Your task to perform on an android device: open chrome privacy settings Image 0: 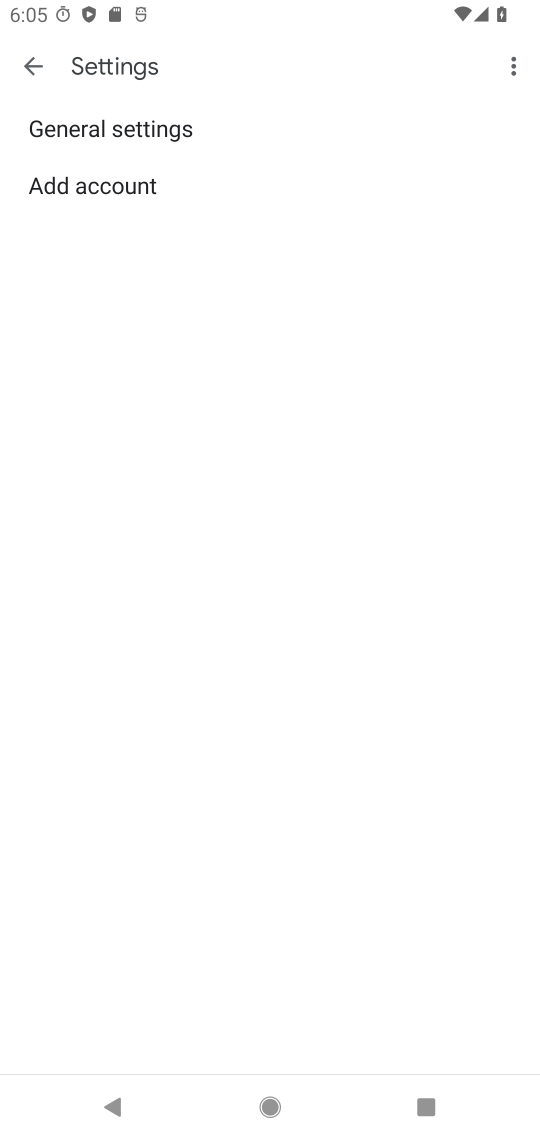
Step 0: press home button
Your task to perform on an android device: open chrome privacy settings Image 1: 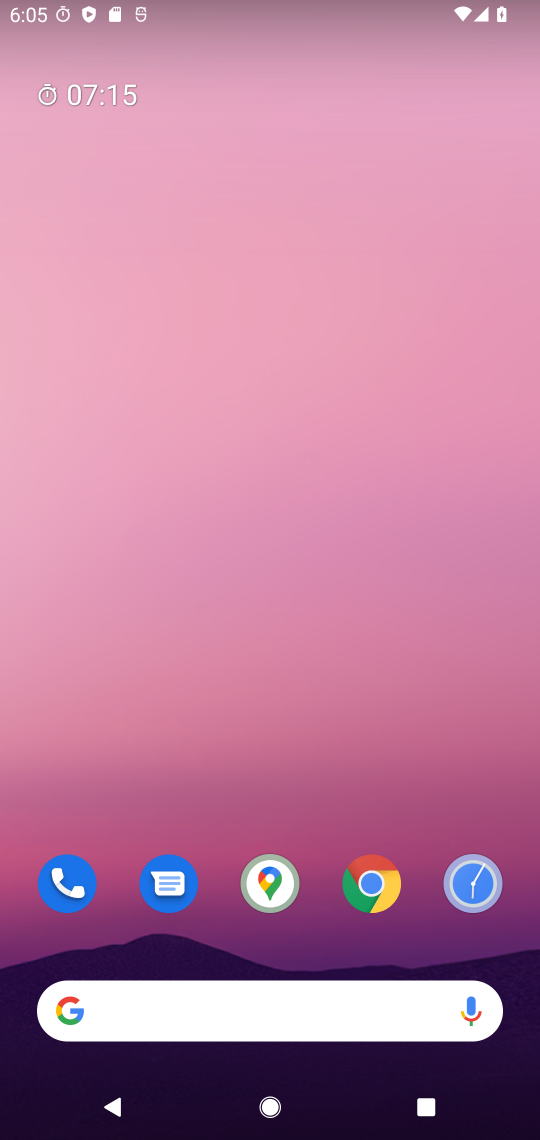
Step 1: click (353, 866)
Your task to perform on an android device: open chrome privacy settings Image 2: 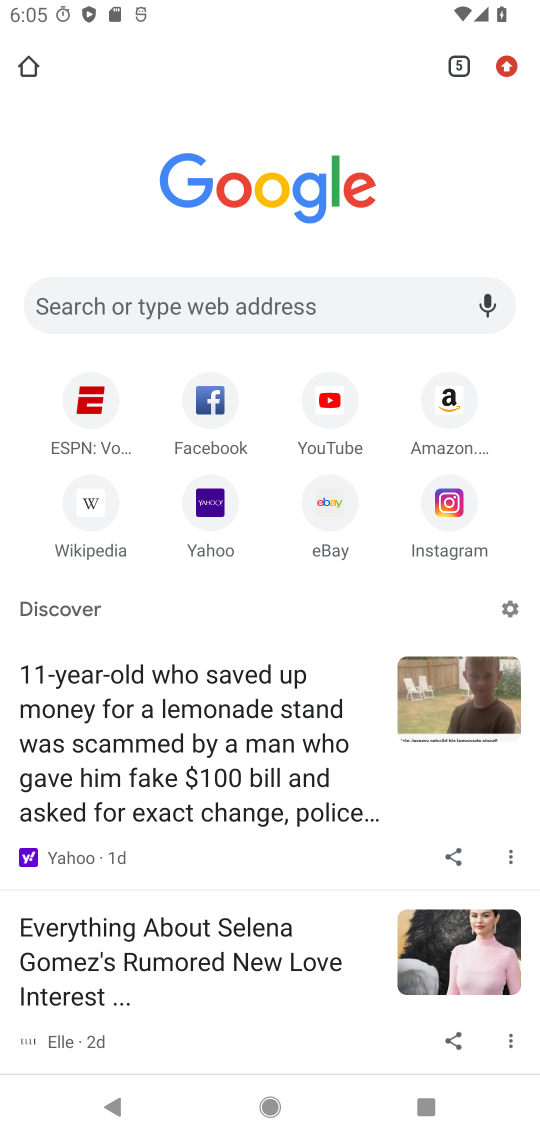
Step 2: click (511, 62)
Your task to perform on an android device: open chrome privacy settings Image 3: 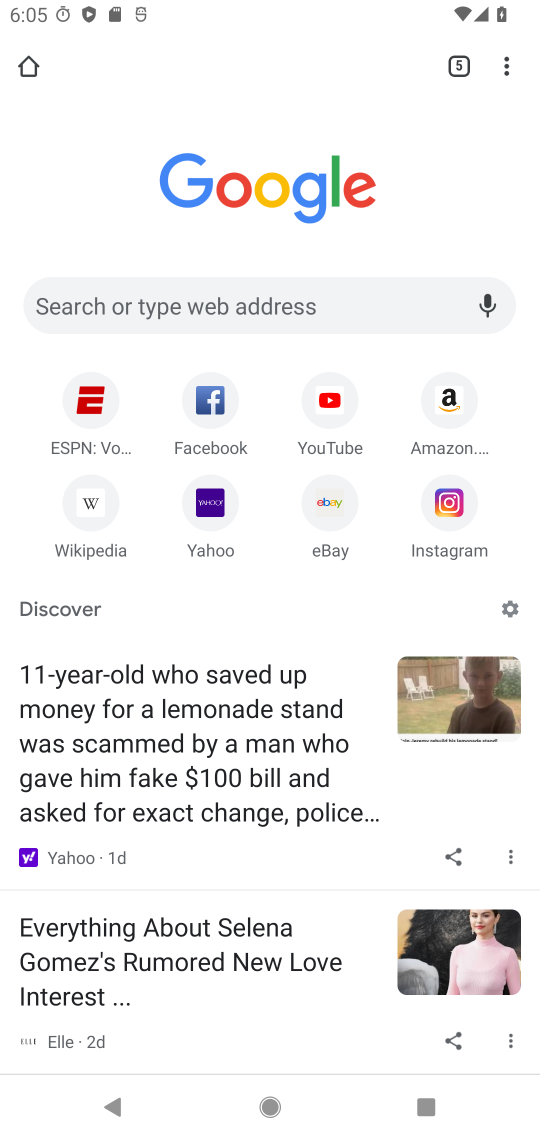
Step 3: click (501, 73)
Your task to perform on an android device: open chrome privacy settings Image 4: 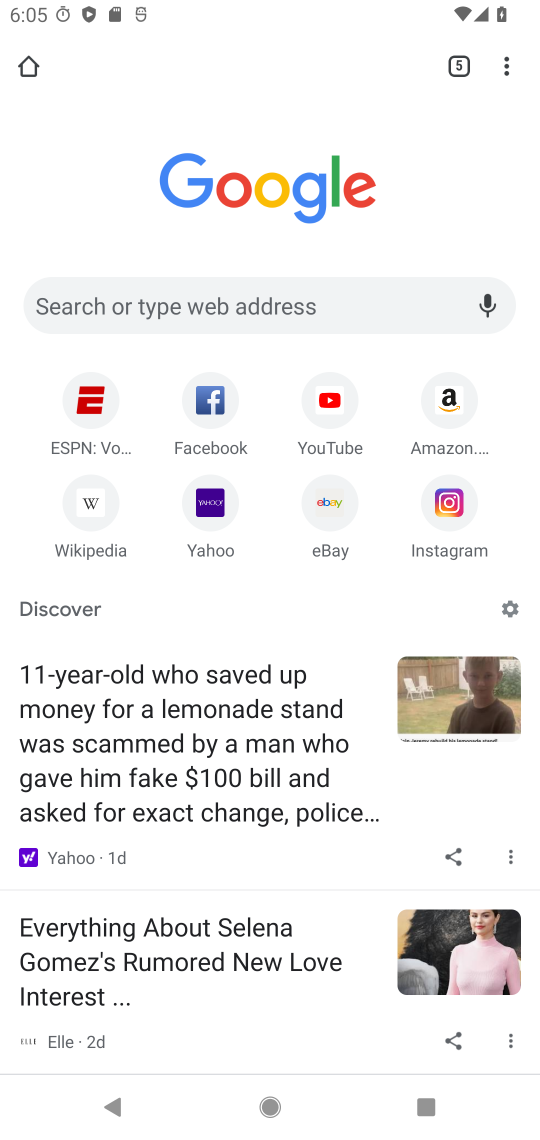
Step 4: drag from (501, 73) to (354, 637)
Your task to perform on an android device: open chrome privacy settings Image 5: 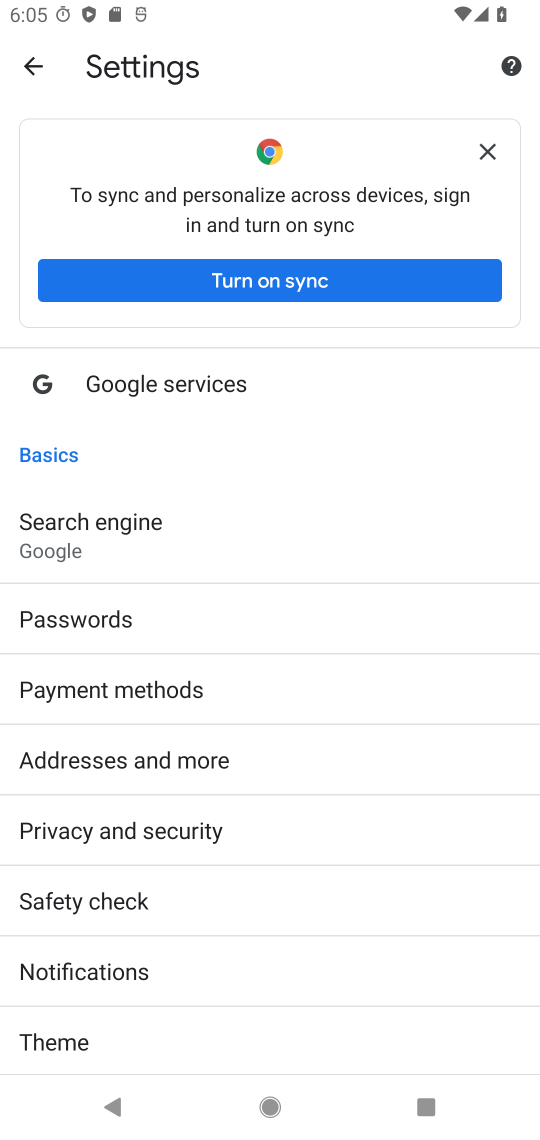
Step 5: drag from (162, 952) to (220, 498)
Your task to perform on an android device: open chrome privacy settings Image 6: 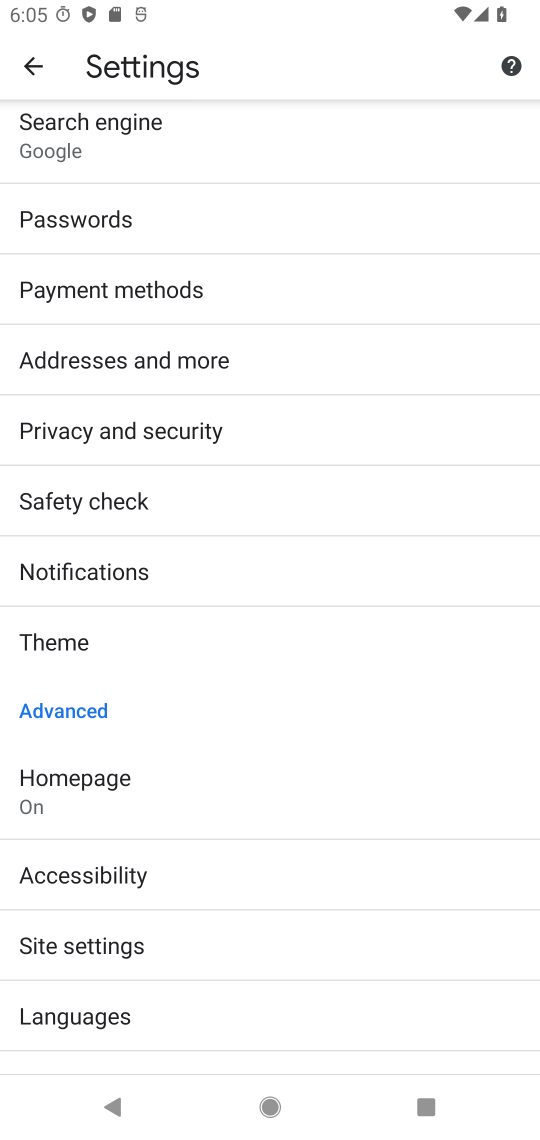
Step 6: drag from (180, 780) to (203, 501)
Your task to perform on an android device: open chrome privacy settings Image 7: 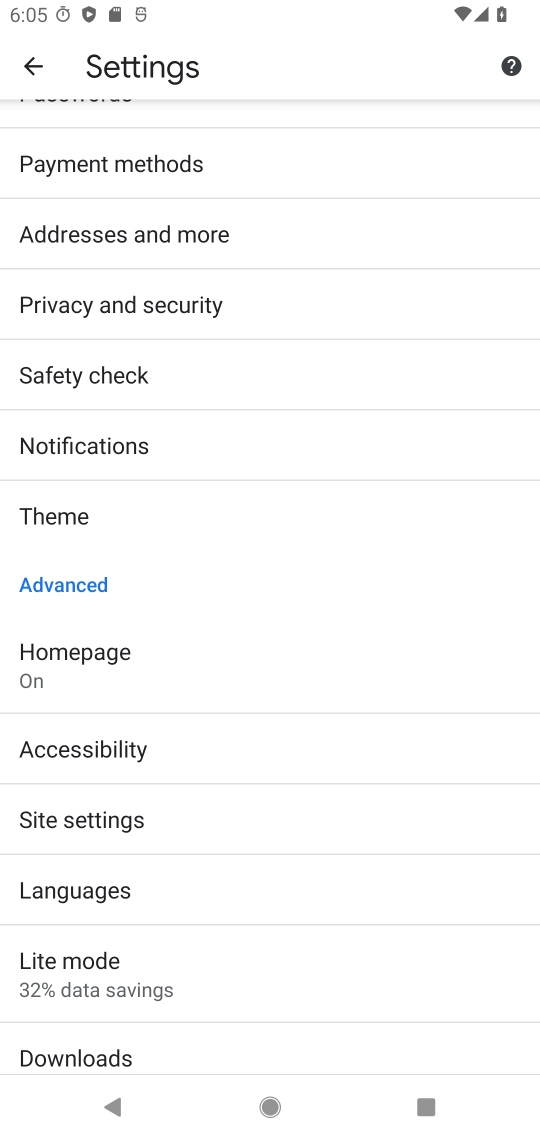
Step 7: drag from (195, 869) to (228, 494)
Your task to perform on an android device: open chrome privacy settings Image 8: 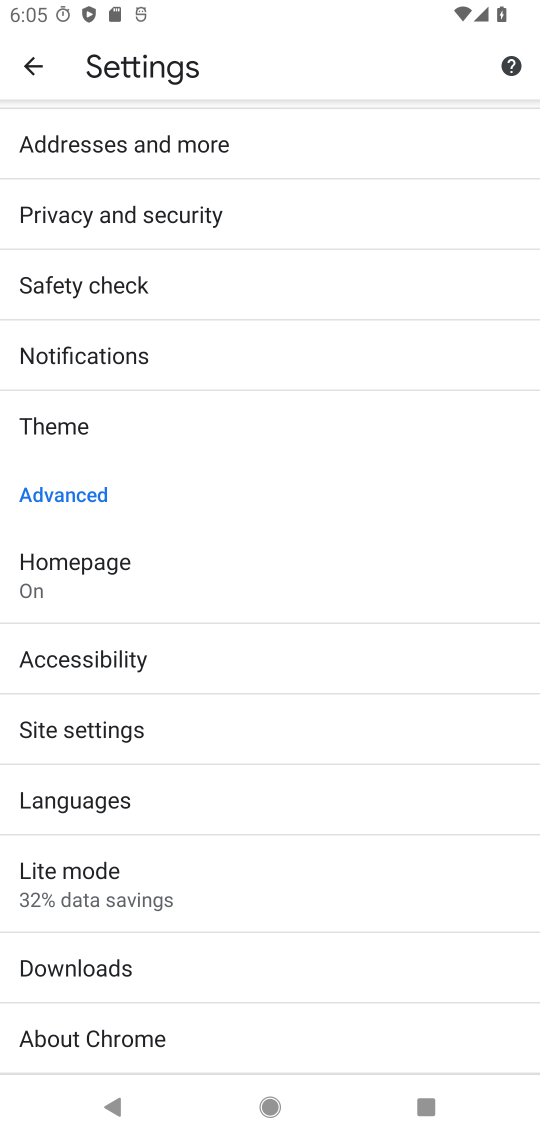
Step 8: drag from (176, 554) to (182, 891)
Your task to perform on an android device: open chrome privacy settings Image 9: 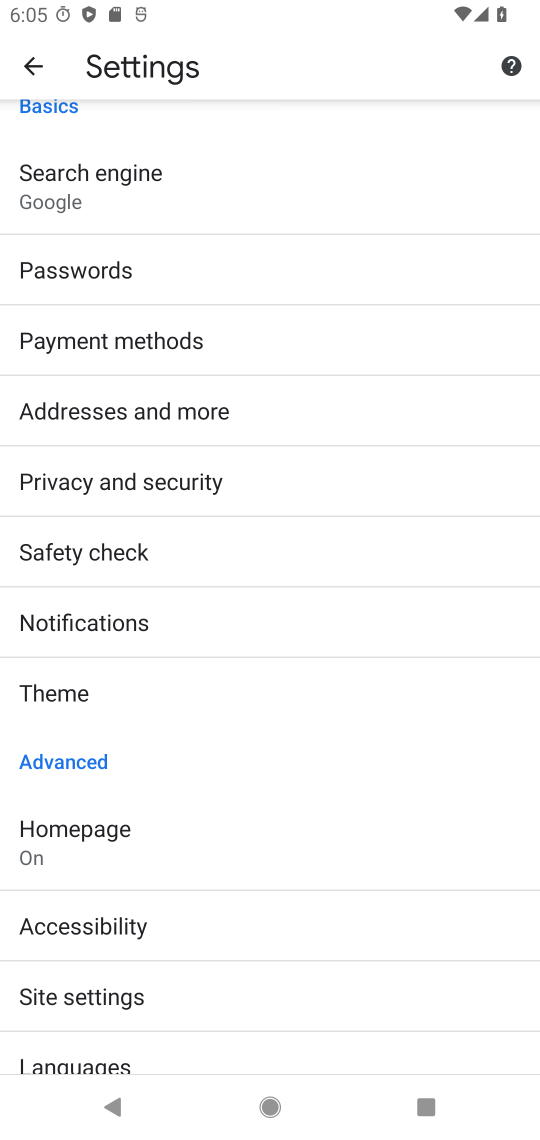
Step 9: click (172, 472)
Your task to perform on an android device: open chrome privacy settings Image 10: 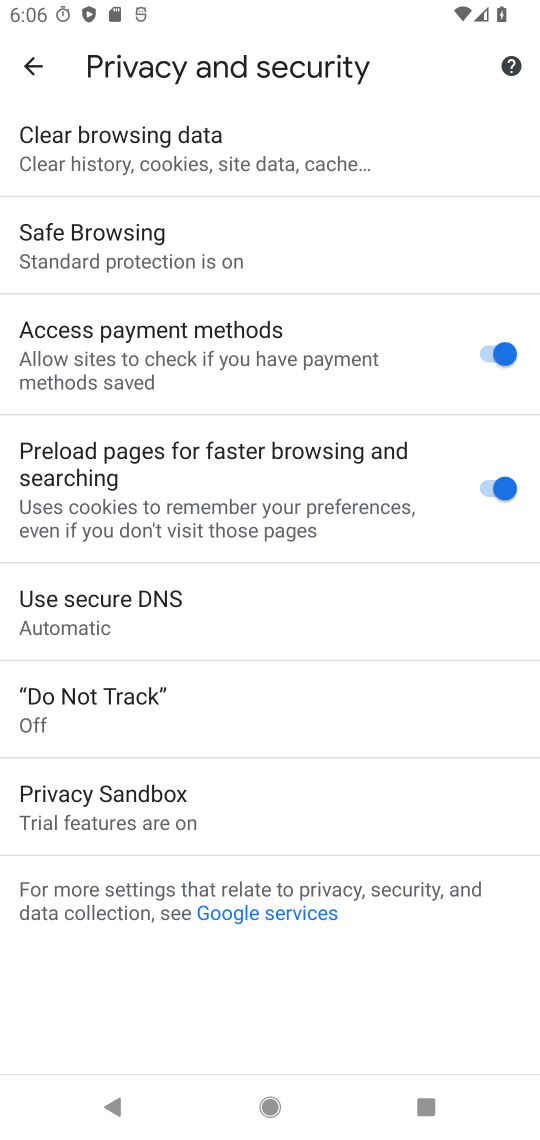
Step 10: task complete